Your task to perform on an android device: Open Google Chrome and open the bookmarks view Image 0: 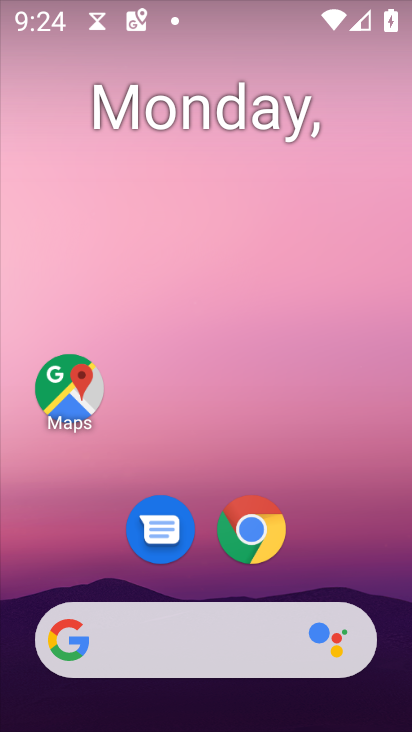
Step 0: drag from (362, 684) to (153, 76)
Your task to perform on an android device: Open Google Chrome and open the bookmarks view Image 1: 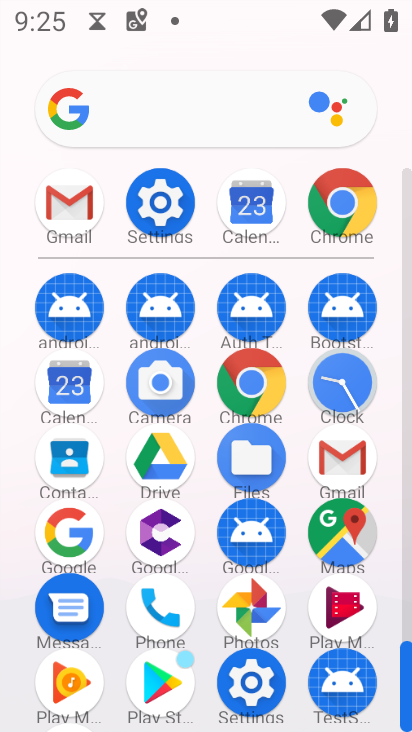
Step 1: click (256, 378)
Your task to perform on an android device: Open Google Chrome and open the bookmarks view Image 2: 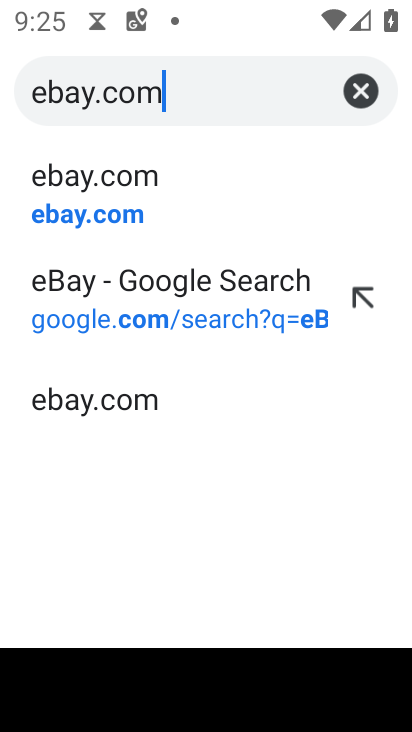
Step 2: press back button
Your task to perform on an android device: Open Google Chrome and open the bookmarks view Image 3: 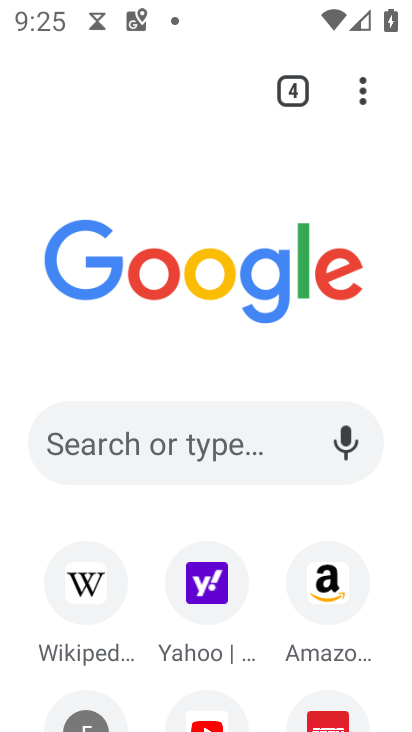
Step 3: click (108, 434)
Your task to perform on an android device: Open Google Chrome and open the bookmarks view Image 4: 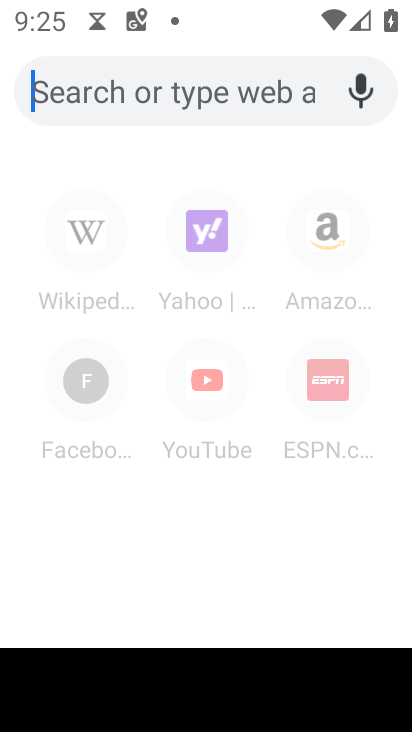
Step 4: press back button
Your task to perform on an android device: Open Google Chrome and open the bookmarks view Image 5: 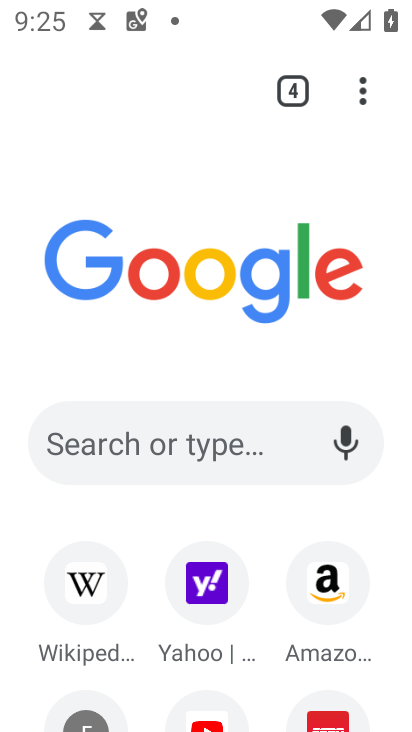
Step 5: click (355, 99)
Your task to perform on an android device: Open Google Chrome and open the bookmarks view Image 6: 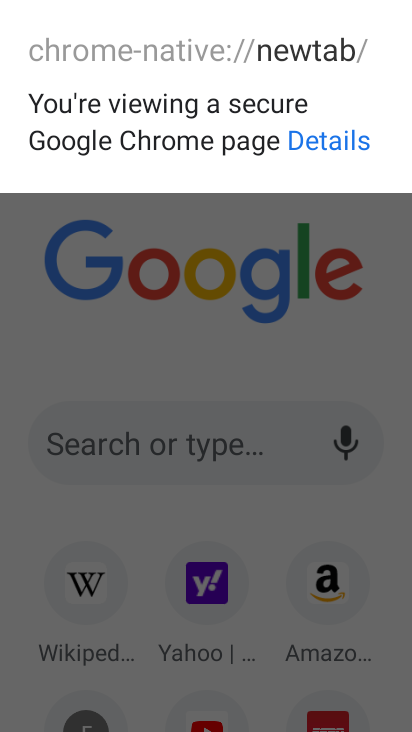
Step 6: click (381, 312)
Your task to perform on an android device: Open Google Chrome and open the bookmarks view Image 7: 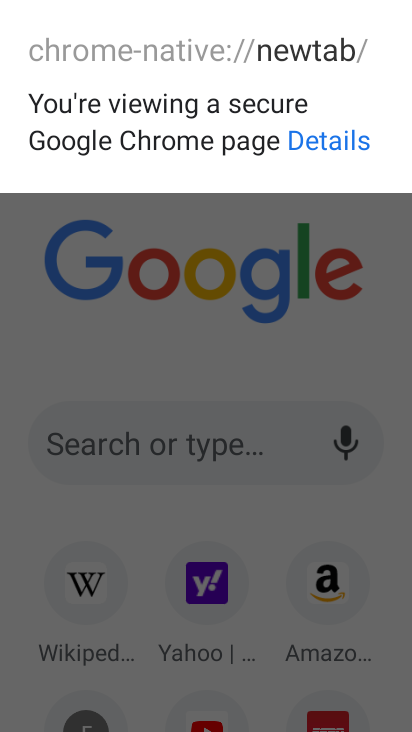
Step 7: click (381, 312)
Your task to perform on an android device: Open Google Chrome and open the bookmarks view Image 8: 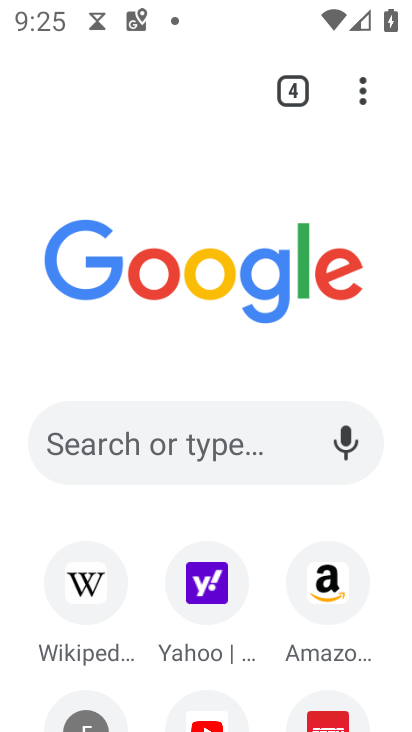
Step 8: click (341, 342)
Your task to perform on an android device: Open Google Chrome and open the bookmarks view Image 9: 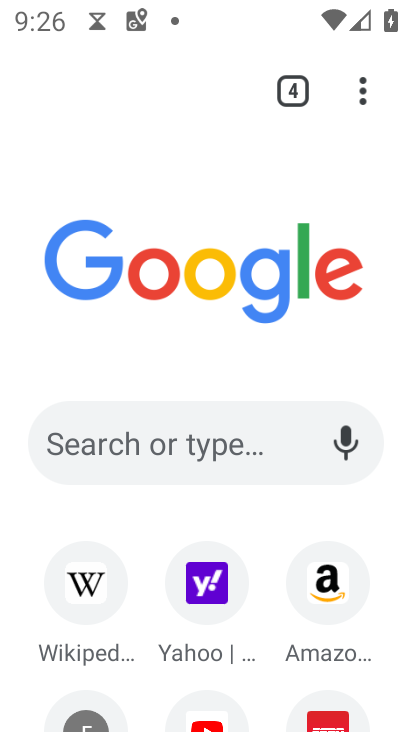
Step 9: drag from (361, 90) to (71, 391)
Your task to perform on an android device: Open Google Chrome and open the bookmarks view Image 10: 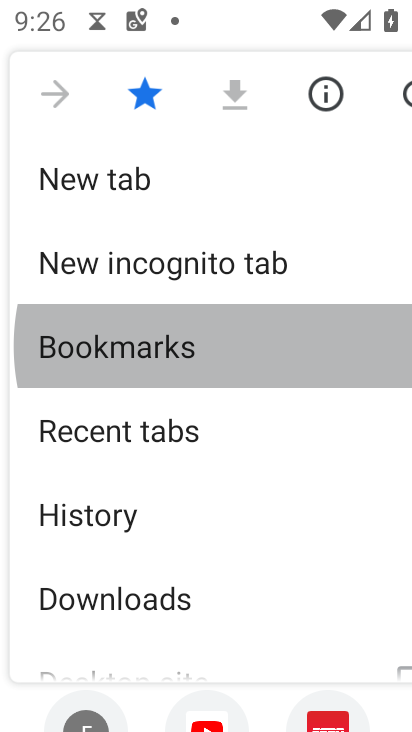
Step 10: click (69, 356)
Your task to perform on an android device: Open Google Chrome and open the bookmarks view Image 11: 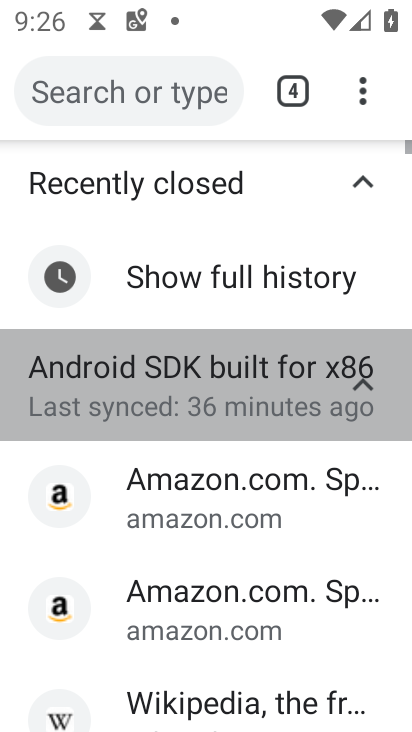
Step 11: click (77, 346)
Your task to perform on an android device: Open Google Chrome and open the bookmarks view Image 12: 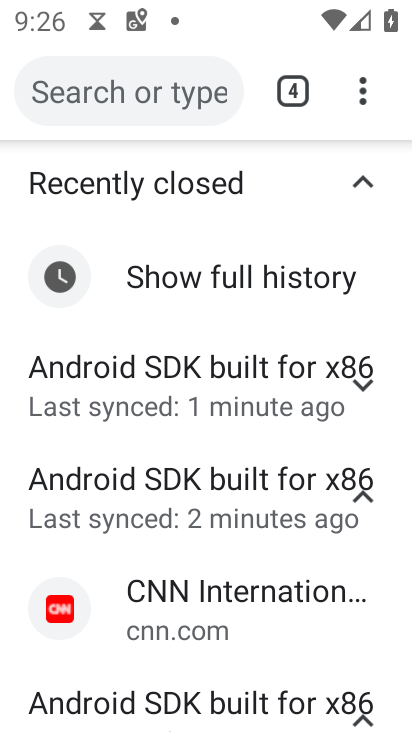
Step 12: task complete